Your task to perform on an android device: move an email to a new category in the gmail app Image 0: 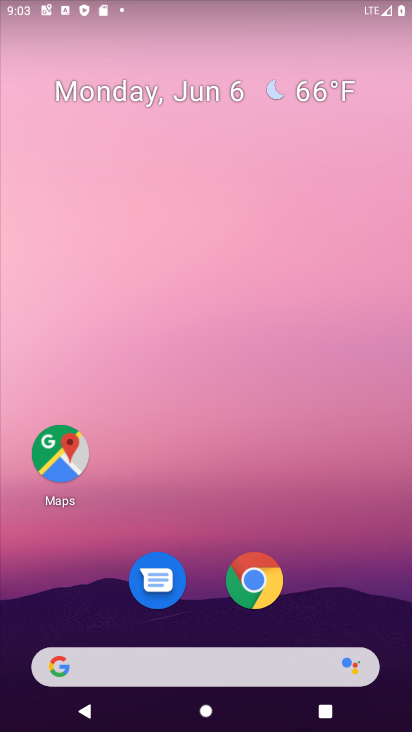
Step 0: drag from (347, 499) to (357, 31)
Your task to perform on an android device: move an email to a new category in the gmail app Image 1: 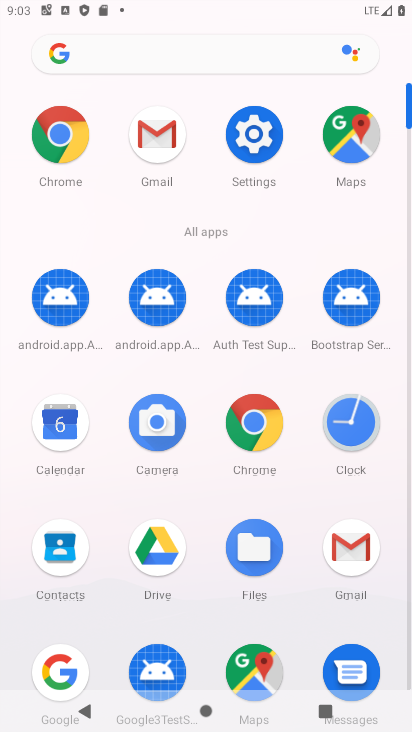
Step 1: click (365, 533)
Your task to perform on an android device: move an email to a new category in the gmail app Image 2: 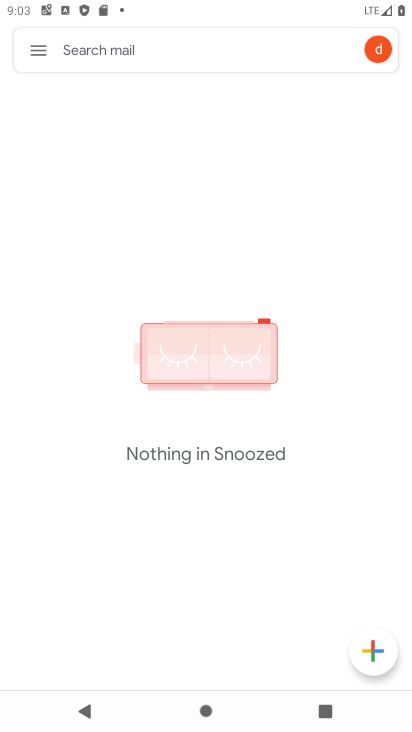
Step 2: click (33, 30)
Your task to perform on an android device: move an email to a new category in the gmail app Image 3: 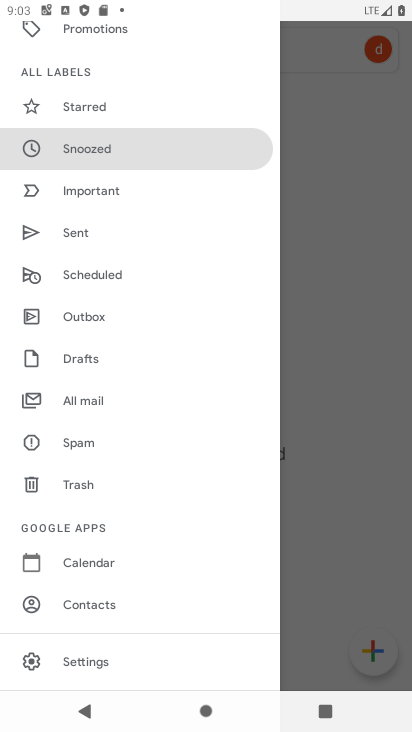
Step 3: click (351, 516)
Your task to perform on an android device: move an email to a new category in the gmail app Image 4: 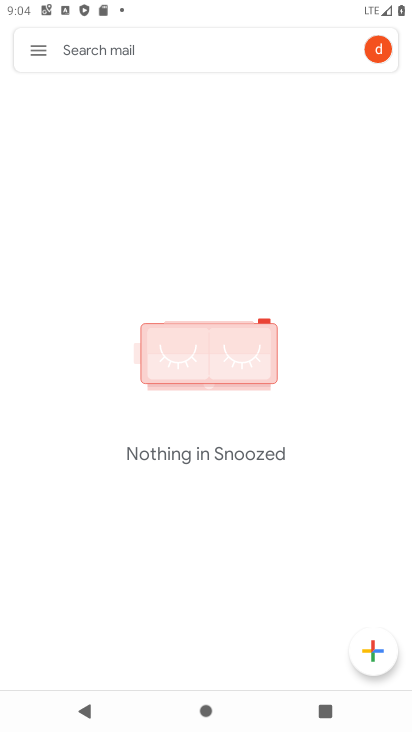
Step 4: task complete